Your task to perform on an android device: turn off notifications in google photos Image 0: 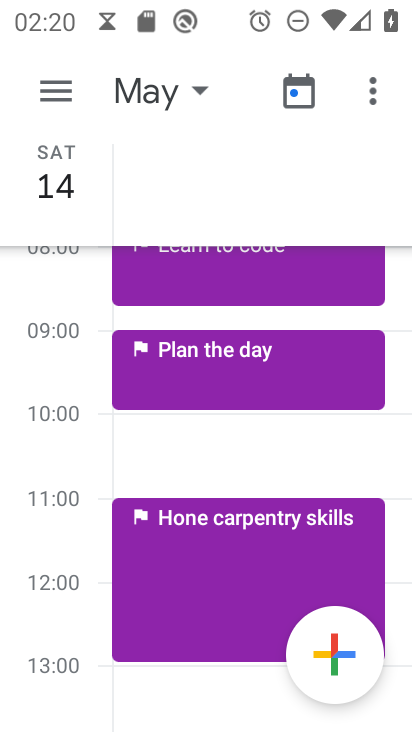
Step 0: press home button
Your task to perform on an android device: turn off notifications in google photos Image 1: 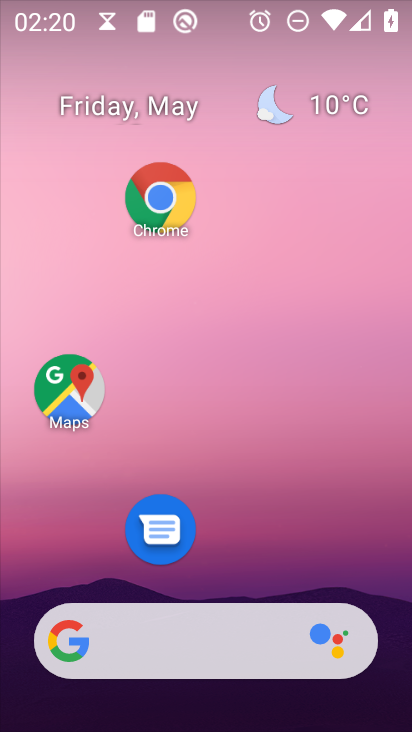
Step 1: drag from (270, 498) to (307, 186)
Your task to perform on an android device: turn off notifications in google photos Image 2: 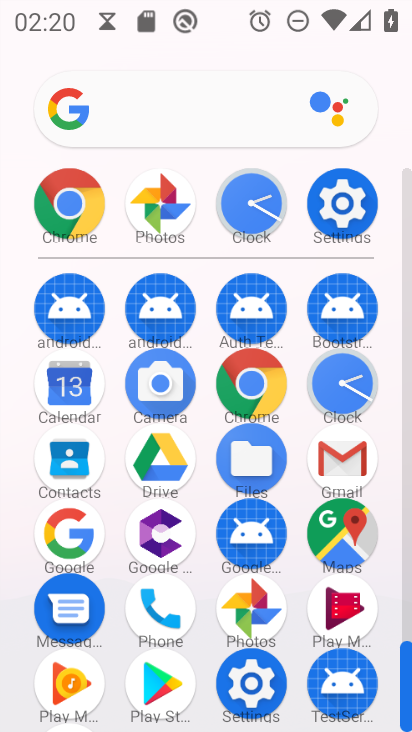
Step 2: click (238, 590)
Your task to perform on an android device: turn off notifications in google photos Image 3: 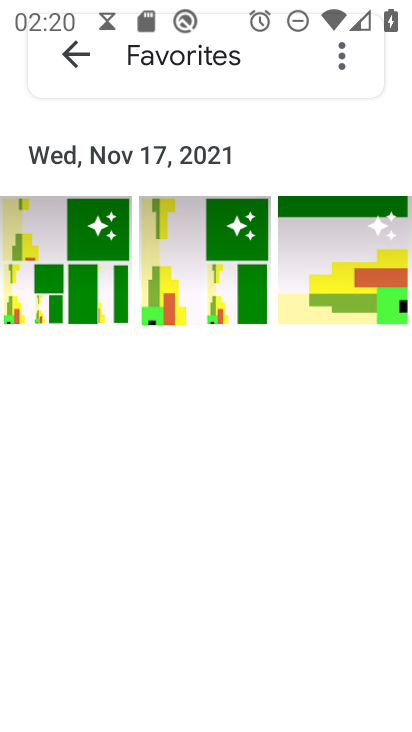
Step 3: click (75, 49)
Your task to perform on an android device: turn off notifications in google photos Image 4: 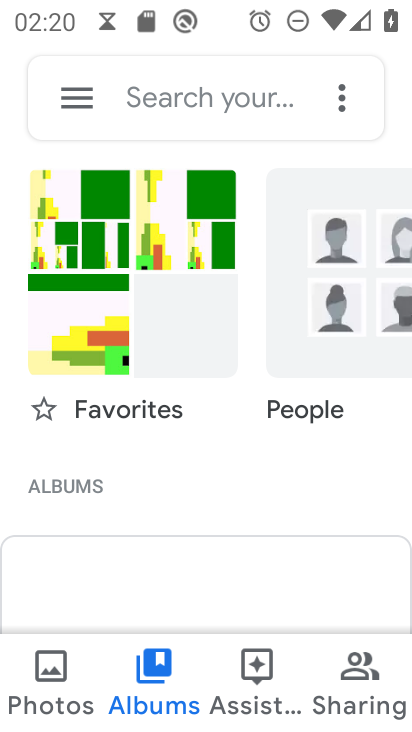
Step 4: click (68, 80)
Your task to perform on an android device: turn off notifications in google photos Image 5: 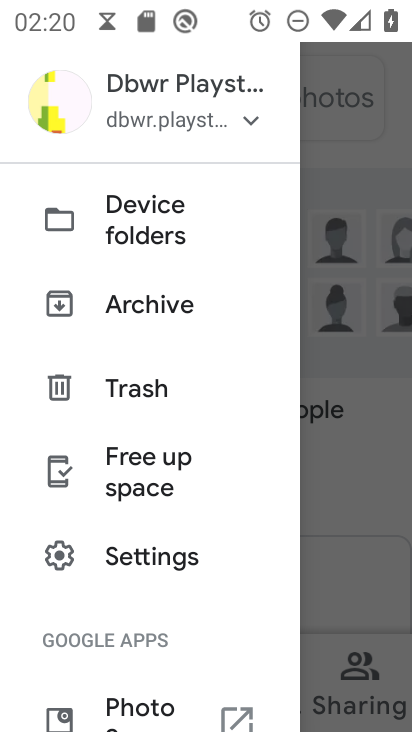
Step 5: click (159, 544)
Your task to perform on an android device: turn off notifications in google photos Image 6: 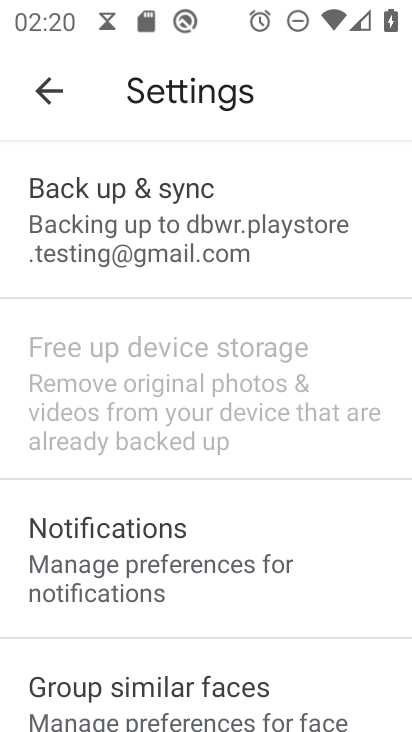
Step 6: click (153, 526)
Your task to perform on an android device: turn off notifications in google photos Image 7: 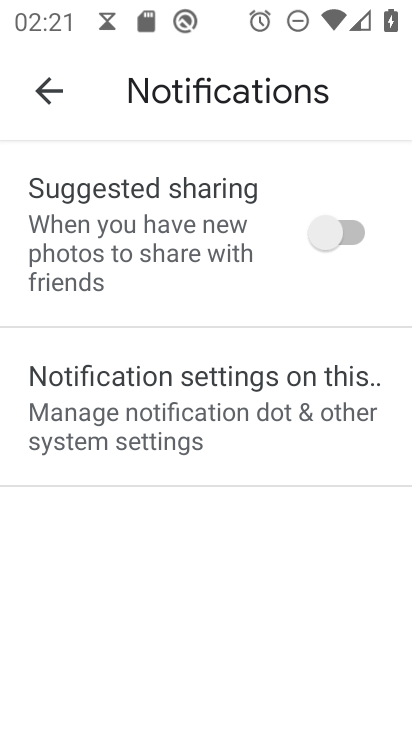
Step 7: click (201, 385)
Your task to perform on an android device: turn off notifications in google photos Image 8: 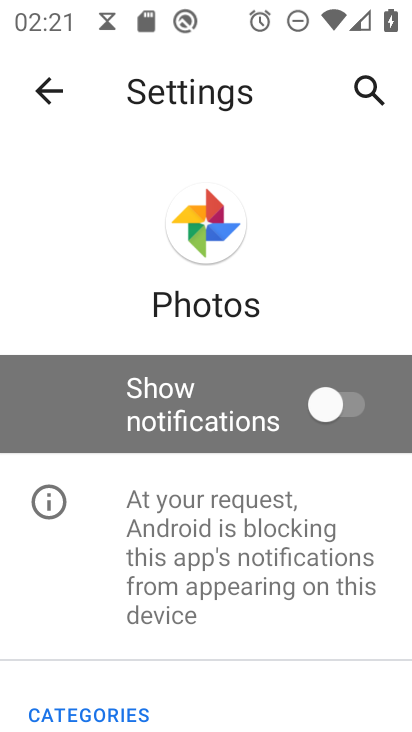
Step 8: task complete